Your task to perform on an android device: Toggle the flashlight Image 0: 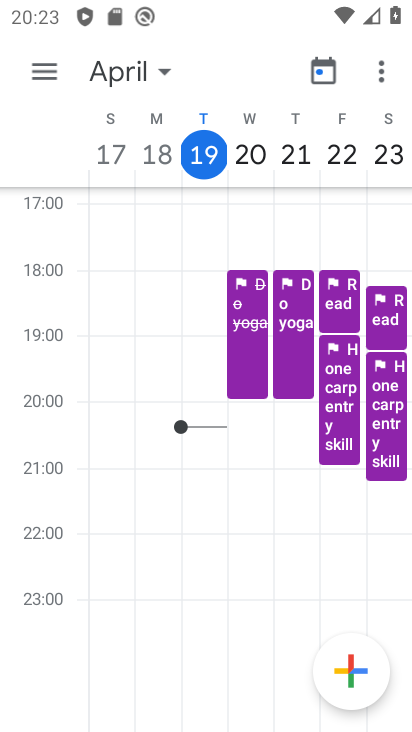
Step 0: press home button
Your task to perform on an android device: Toggle the flashlight Image 1: 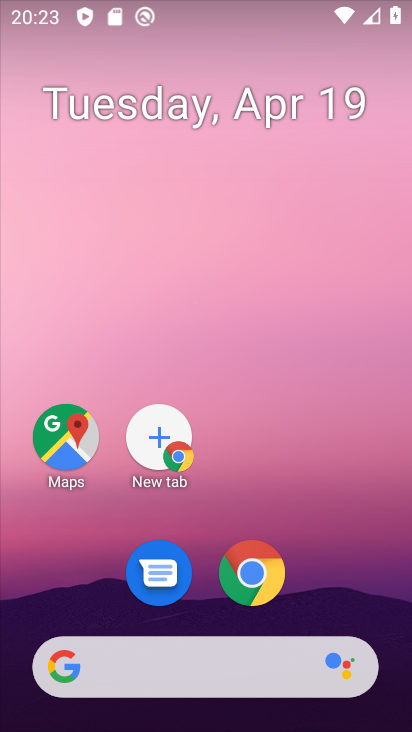
Step 1: drag from (348, 313) to (344, 136)
Your task to perform on an android device: Toggle the flashlight Image 2: 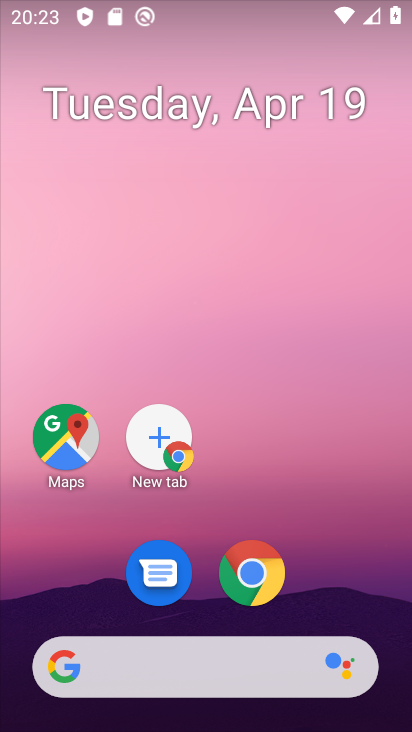
Step 2: drag from (383, 201) to (381, 130)
Your task to perform on an android device: Toggle the flashlight Image 3: 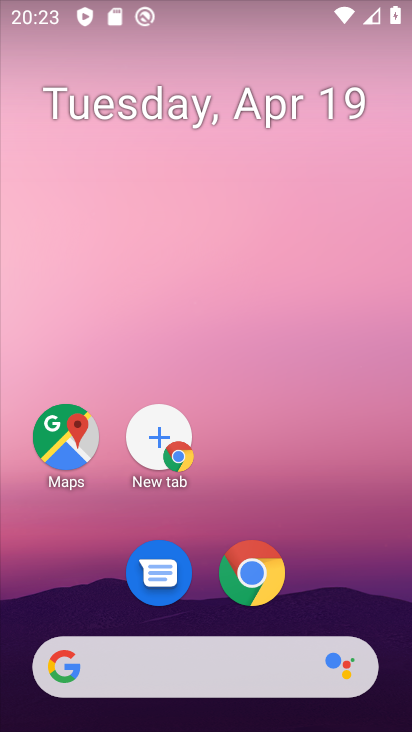
Step 3: drag from (367, 537) to (380, 81)
Your task to perform on an android device: Toggle the flashlight Image 4: 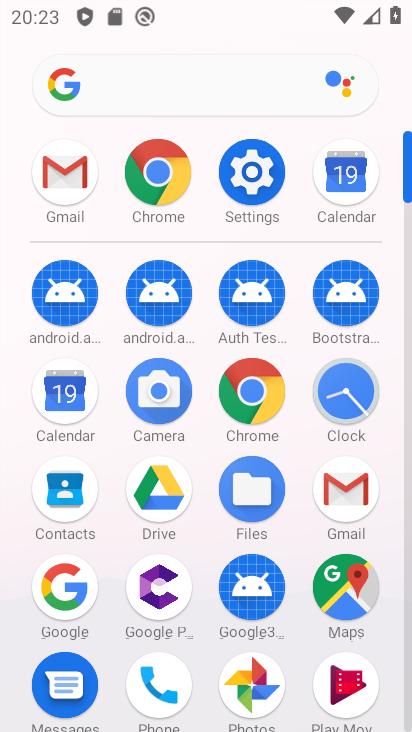
Step 4: click (251, 180)
Your task to perform on an android device: Toggle the flashlight Image 5: 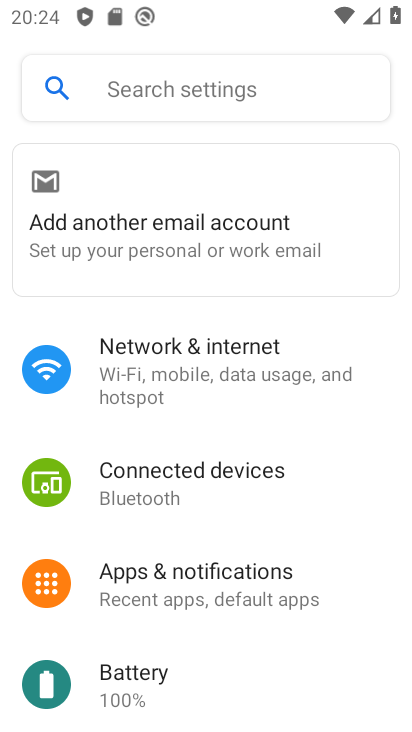
Step 5: drag from (296, 648) to (323, 268)
Your task to perform on an android device: Toggle the flashlight Image 6: 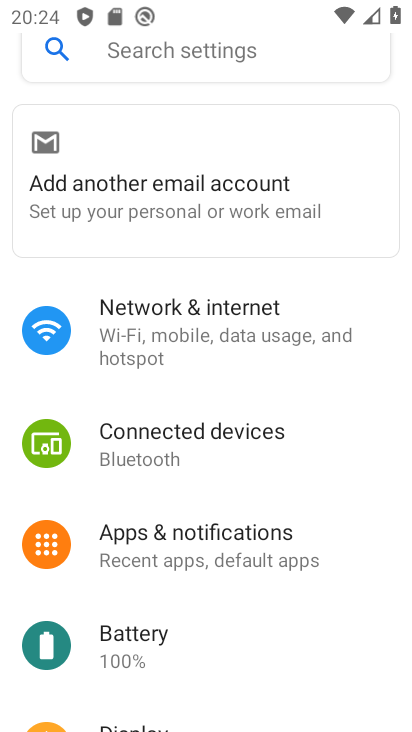
Step 6: drag from (300, 684) to (319, 260)
Your task to perform on an android device: Toggle the flashlight Image 7: 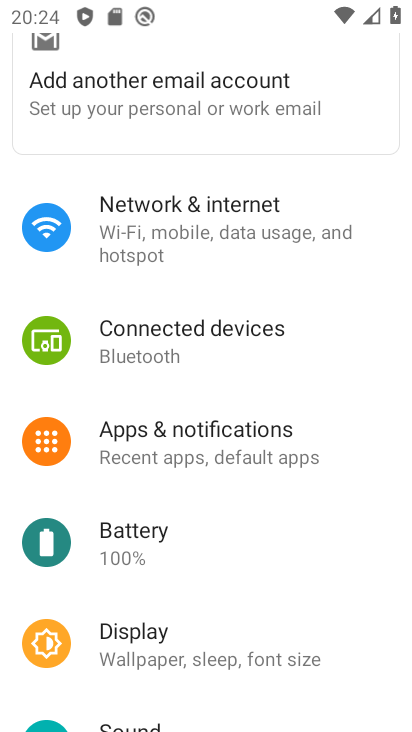
Step 7: click (104, 626)
Your task to perform on an android device: Toggle the flashlight Image 8: 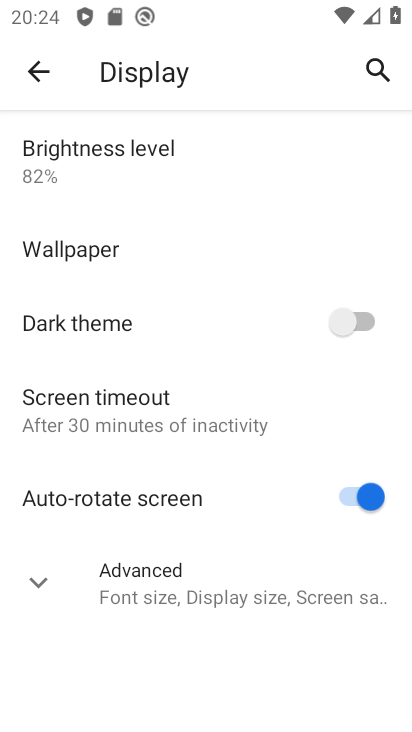
Step 8: task complete